Your task to perform on an android device: check data usage Image 0: 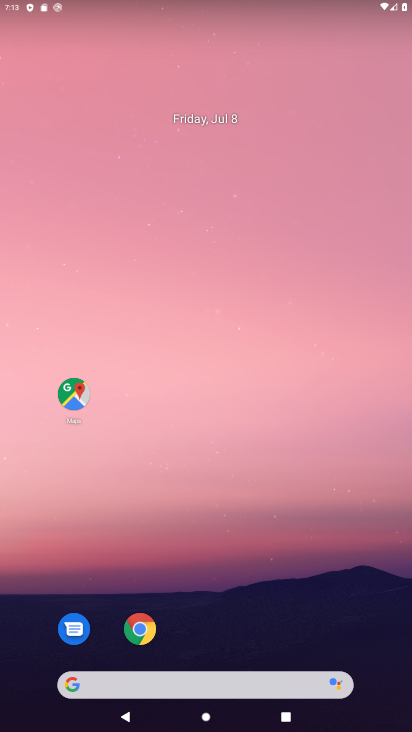
Step 0: press home button
Your task to perform on an android device: check data usage Image 1: 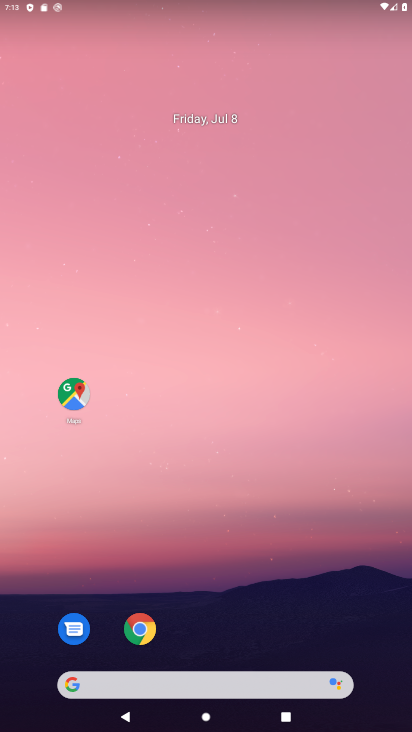
Step 1: drag from (275, 618) to (271, 105)
Your task to perform on an android device: check data usage Image 2: 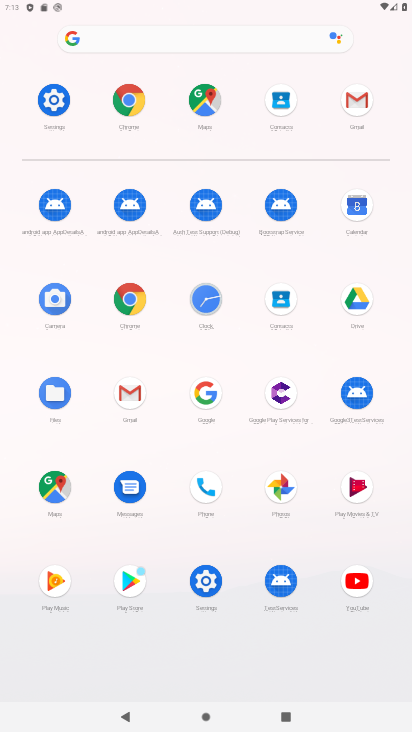
Step 2: drag from (393, 2) to (182, 499)
Your task to perform on an android device: check data usage Image 3: 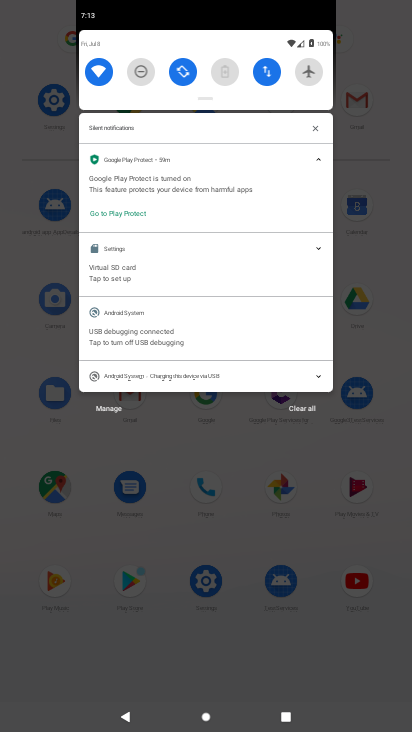
Step 3: click (261, 80)
Your task to perform on an android device: check data usage Image 4: 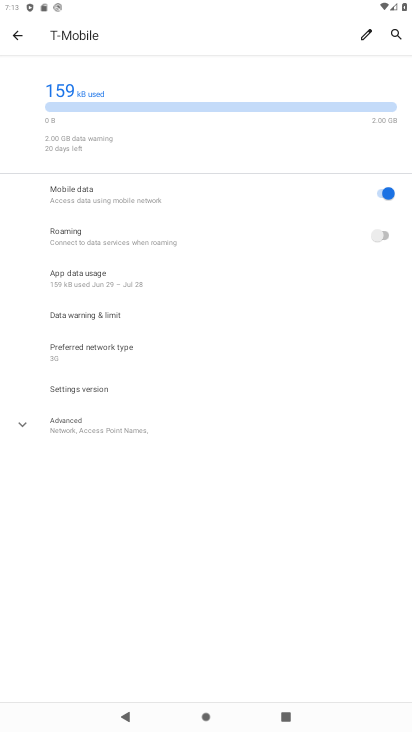
Step 4: task complete